Your task to perform on an android device: Open the phone app and click the voicemail tab. Image 0: 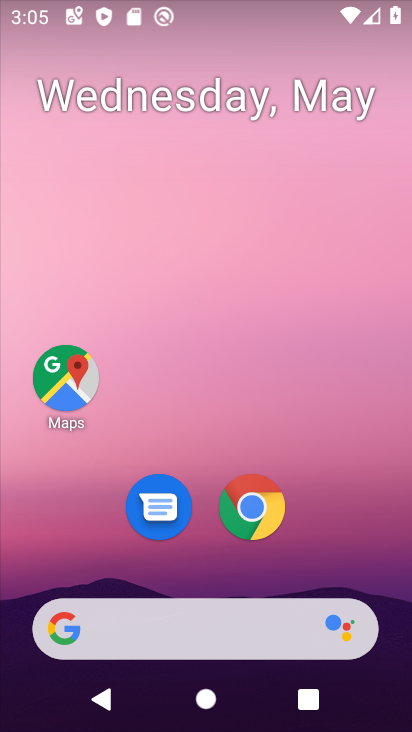
Step 0: drag from (186, 570) to (219, 114)
Your task to perform on an android device: Open the phone app and click the voicemail tab. Image 1: 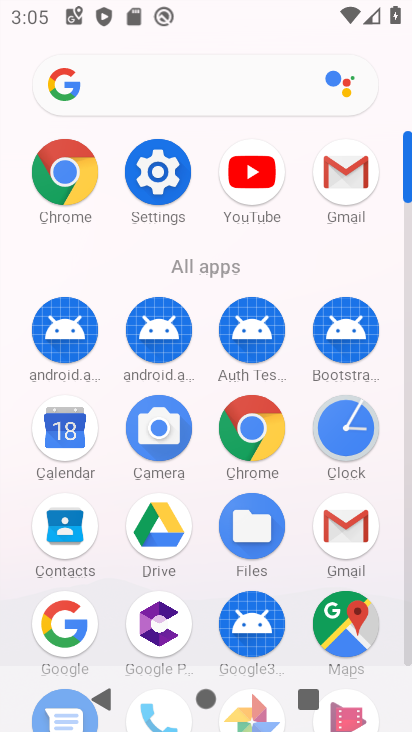
Step 1: drag from (236, 648) to (269, 244)
Your task to perform on an android device: Open the phone app and click the voicemail tab. Image 2: 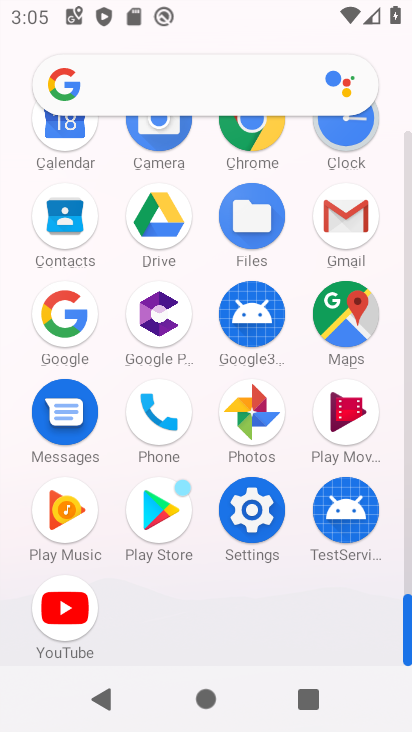
Step 2: click (160, 438)
Your task to perform on an android device: Open the phone app and click the voicemail tab. Image 3: 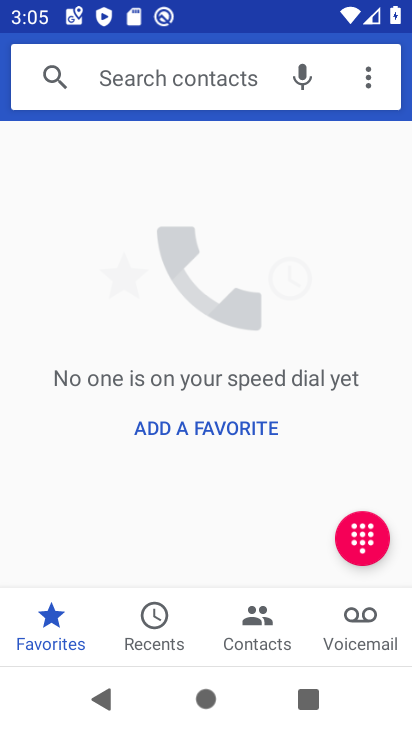
Step 3: click (371, 622)
Your task to perform on an android device: Open the phone app and click the voicemail tab. Image 4: 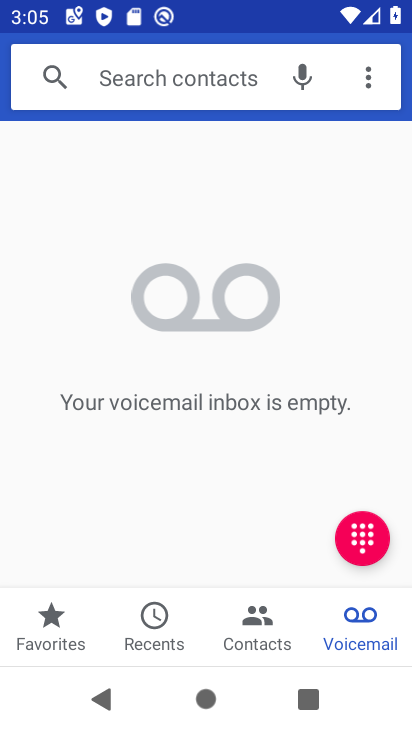
Step 4: task complete